Your task to perform on an android device: Open ESPN.com Image 0: 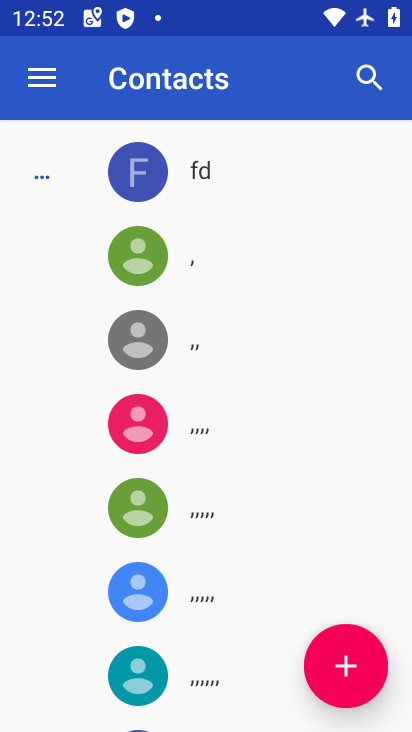
Step 0: press home button
Your task to perform on an android device: Open ESPN.com Image 1: 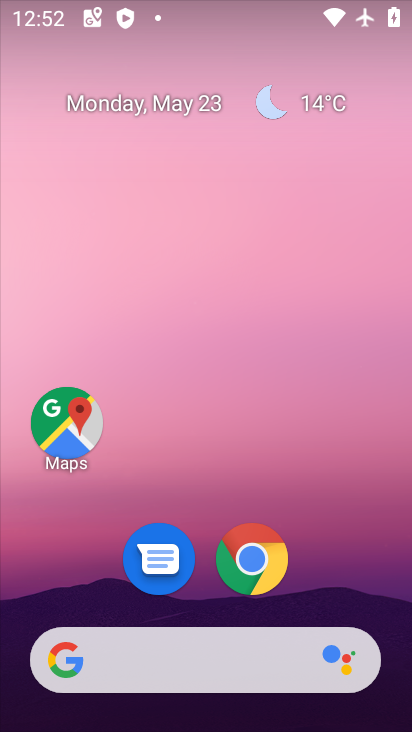
Step 1: click (254, 565)
Your task to perform on an android device: Open ESPN.com Image 2: 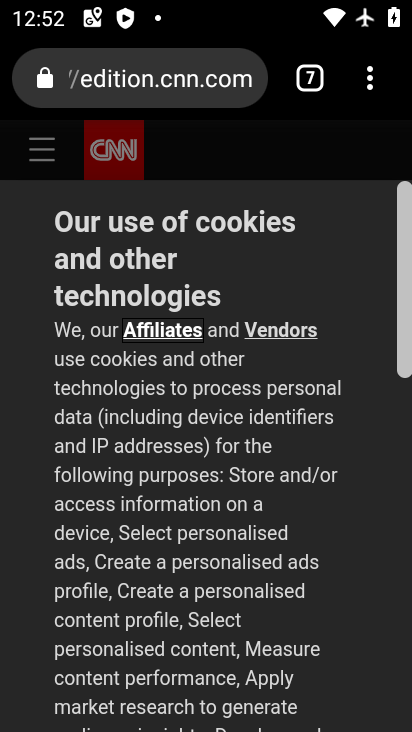
Step 2: click (121, 86)
Your task to perform on an android device: Open ESPN.com Image 3: 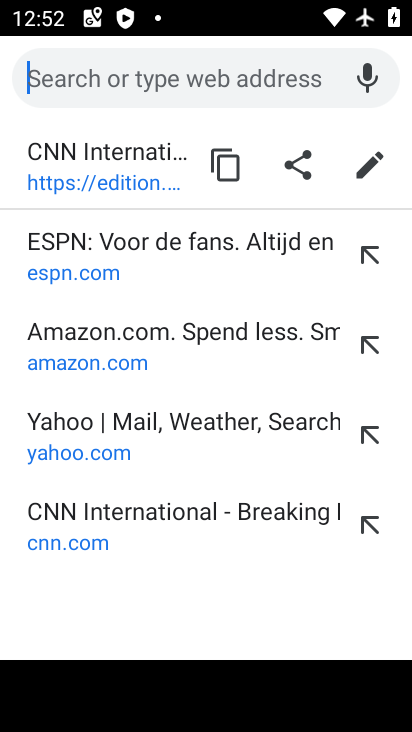
Step 3: click (85, 269)
Your task to perform on an android device: Open ESPN.com Image 4: 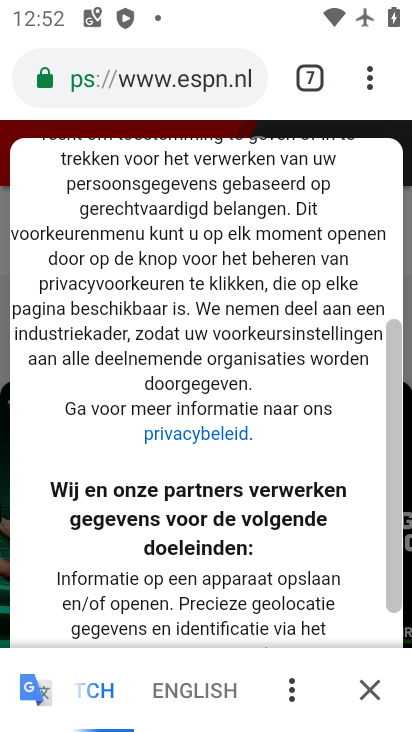
Step 4: task complete